Your task to perform on an android device: Go to Google Image 0: 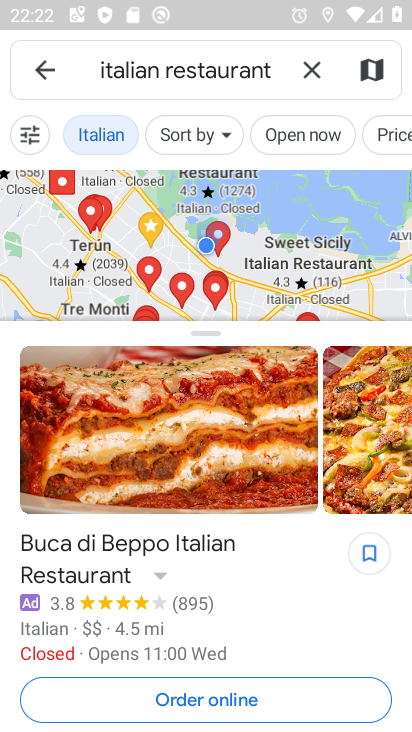
Step 0: press home button
Your task to perform on an android device: Go to Google Image 1: 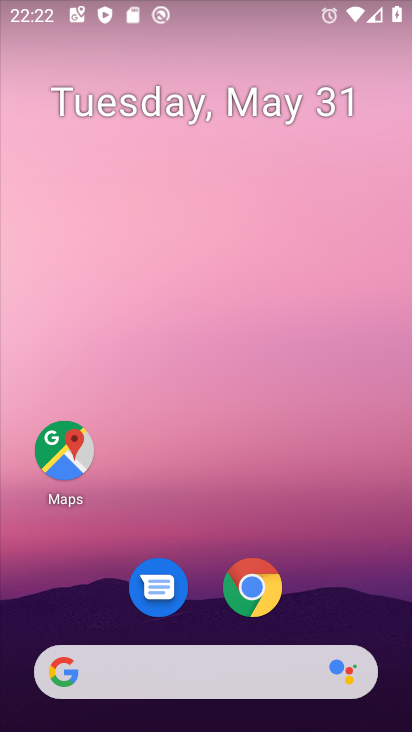
Step 1: drag from (353, 604) to (379, 211)
Your task to perform on an android device: Go to Google Image 2: 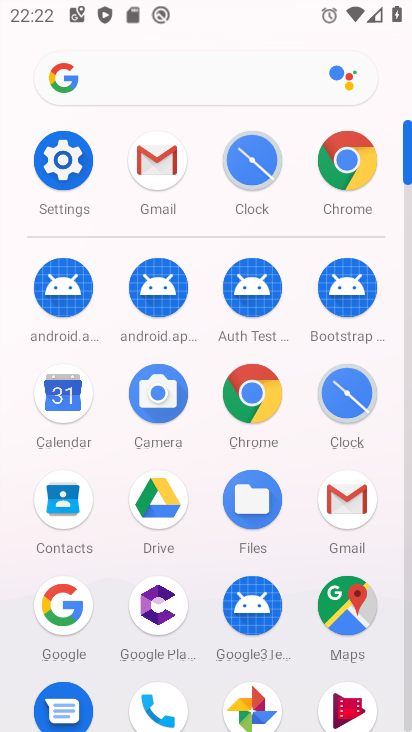
Step 2: drag from (192, 563) to (214, 400)
Your task to perform on an android device: Go to Google Image 3: 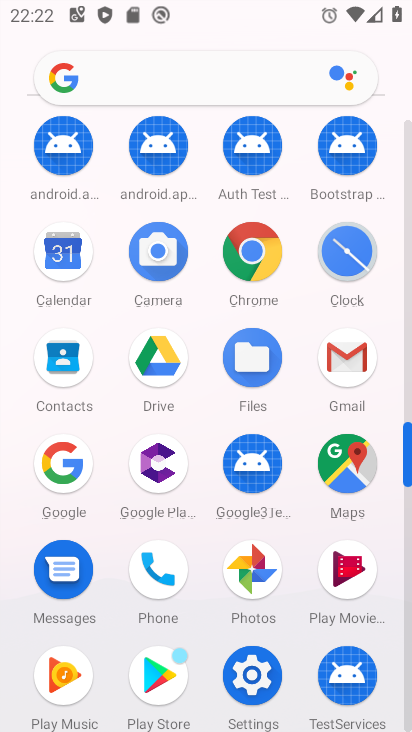
Step 3: click (69, 497)
Your task to perform on an android device: Go to Google Image 4: 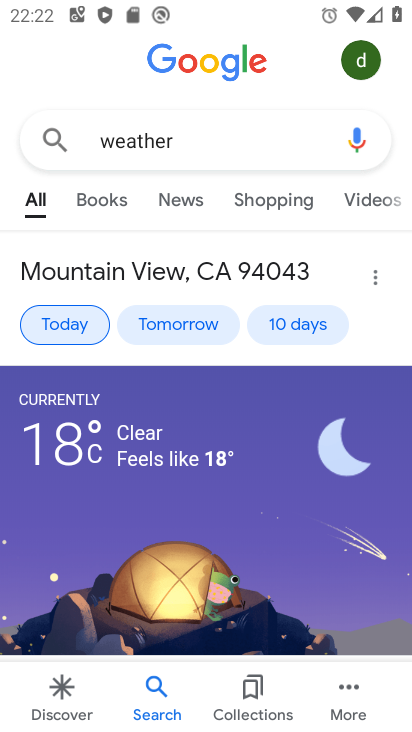
Step 4: task complete